Your task to perform on an android device: Check the news Image 0: 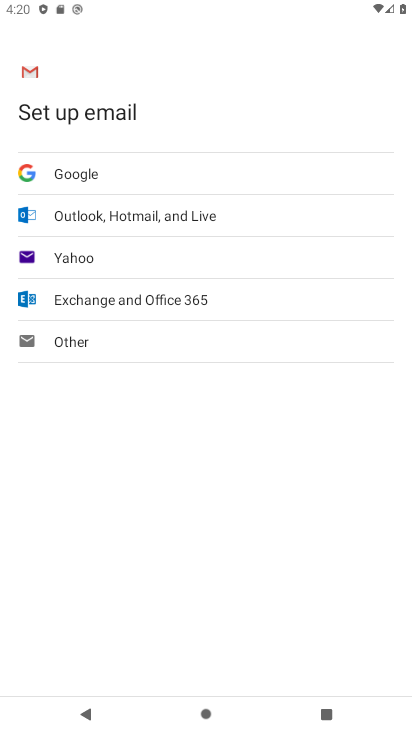
Step 0: press home button
Your task to perform on an android device: Check the news Image 1: 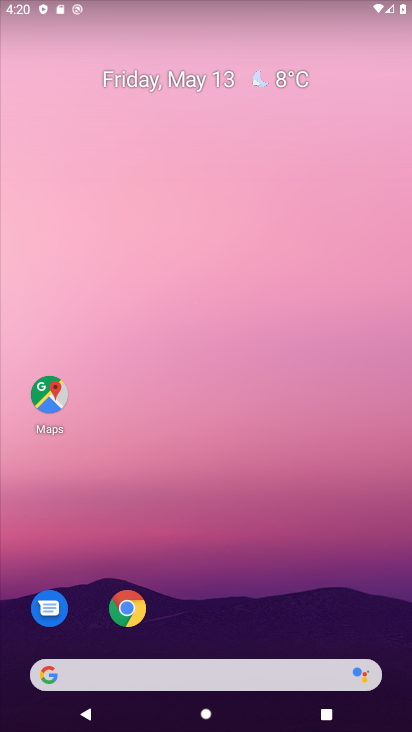
Step 1: drag from (208, 546) to (202, 177)
Your task to perform on an android device: Check the news Image 2: 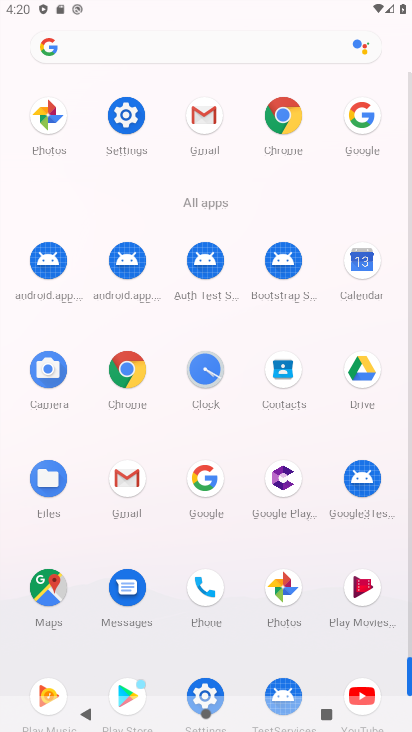
Step 2: click (201, 477)
Your task to perform on an android device: Check the news Image 3: 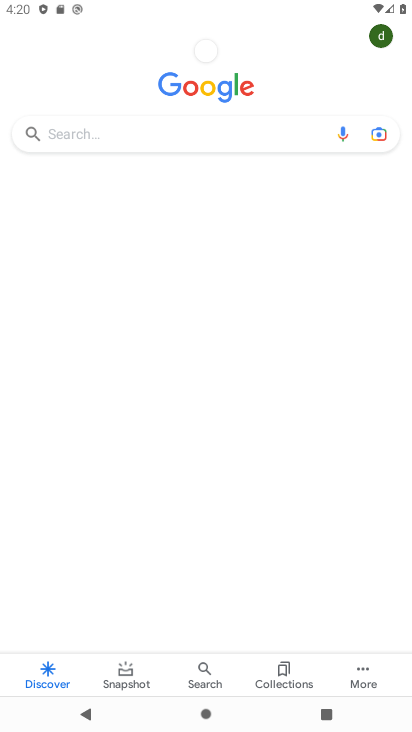
Step 3: click (144, 129)
Your task to perform on an android device: Check the news Image 4: 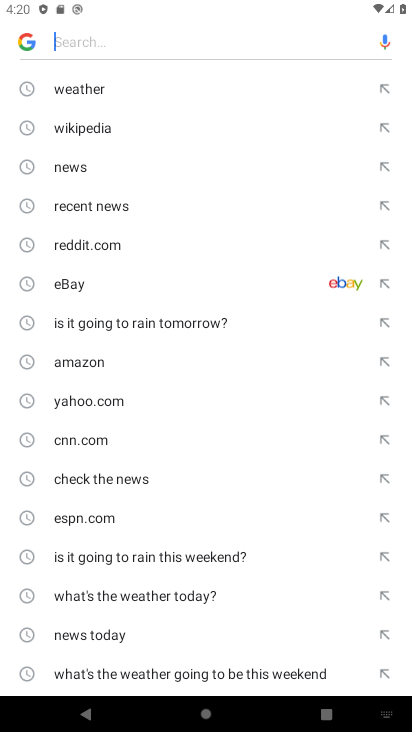
Step 4: click (88, 164)
Your task to perform on an android device: Check the news Image 5: 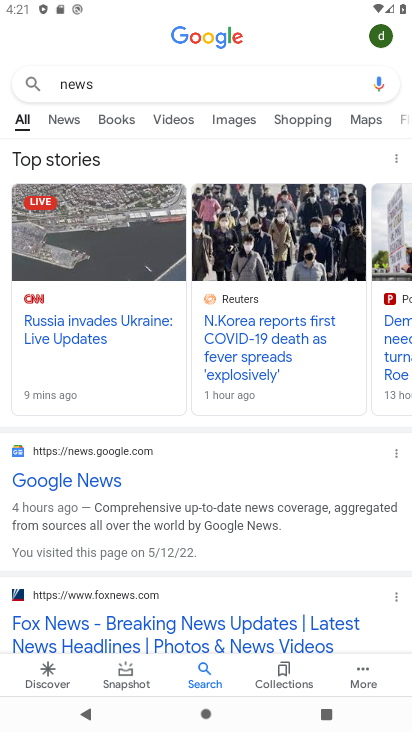
Step 5: task complete